Your task to perform on an android device: What is the news today? Image 0: 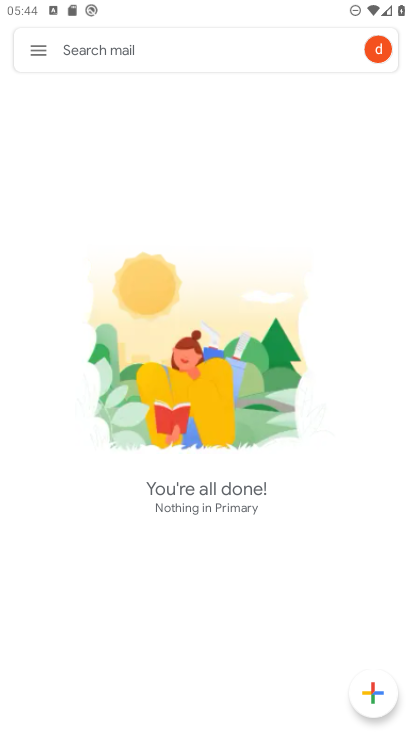
Step 0: press home button
Your task to perform on an android device: What is the news today? Image 1: 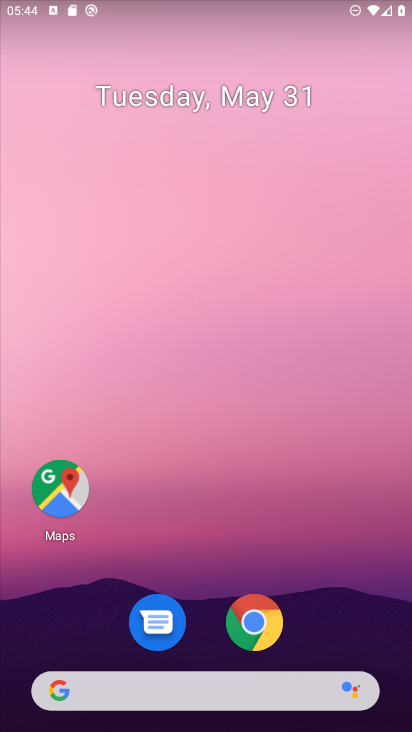
Step 1: drag from (382, 484) to (348, 14)
Your task to perform on an android device: What is the news today? Image 2: 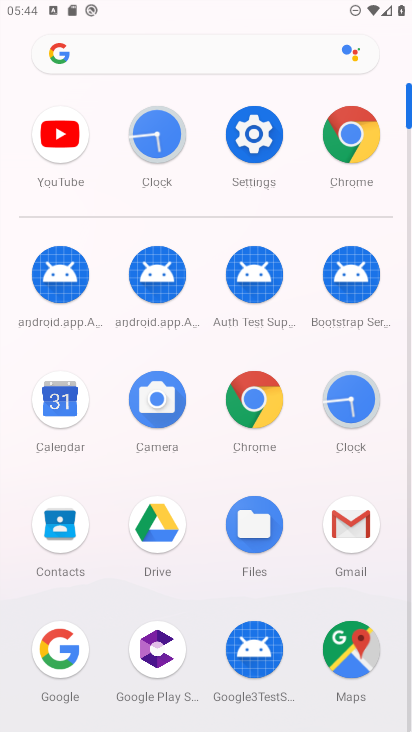
Step 2: click (258, 405)
Your task to perform on an android device: What is the news today? Image 3: 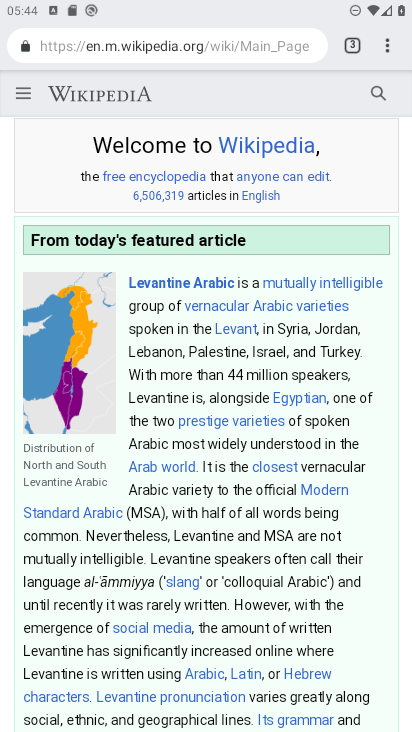
Step 3: click (235, 37)
Your task to perform on an android device: What is the news today? Image 4: 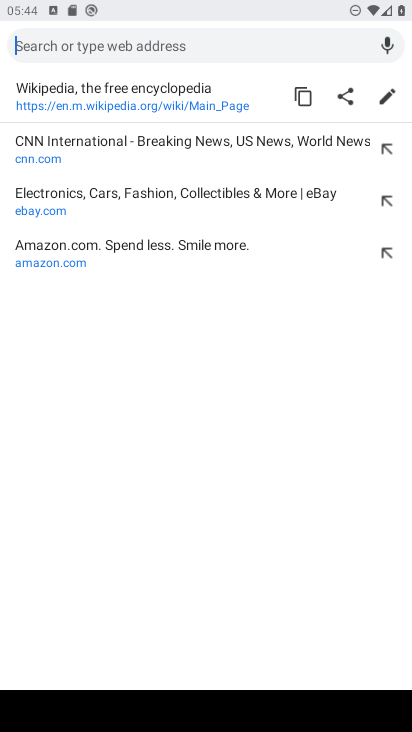
Step 4: type "news today"
Your task to perform on an android device: What is the news today? Image 5: 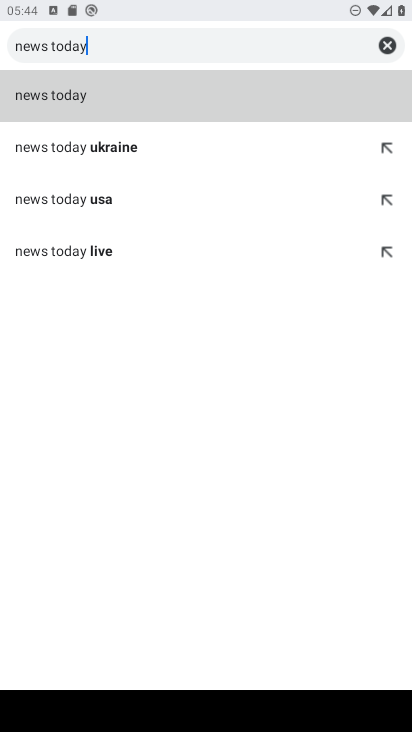
Step 5: click (62, 102)
Your task to perform on an android device: What is the news today? Image 6: 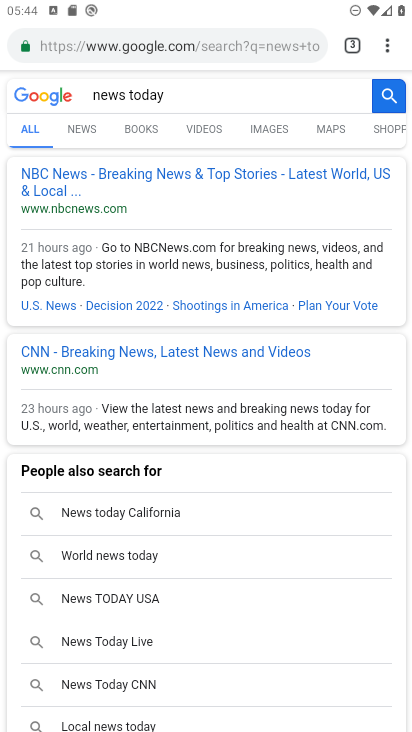
Step 6: task complete